Your task to perform on an android device: turn on priority inbox in the gmail app Image 0: 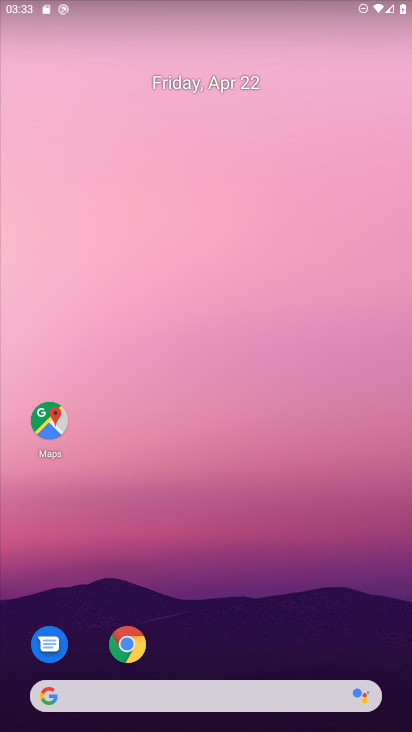
Step 0: drag from (255, 600) to (270, 37)
Your task to perform on an android device: turn on priority inbox in the gmail app Image 1: 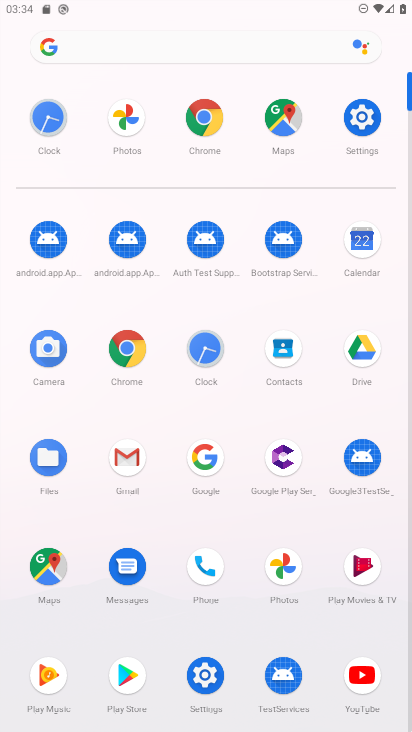
Step 1: click (135, 460)
Your task to perform on an android device: turn on priority inbox in the gmail app Image 2: 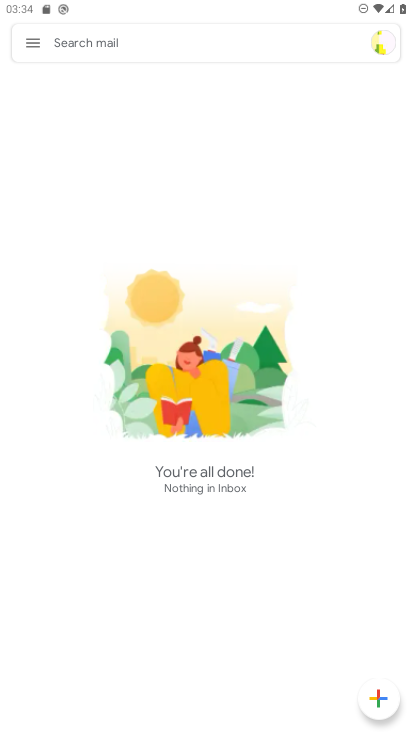
Step 2: click (24, 38)
Your task to perform on an android device: turn on priority inbox in the gmail app Image 3: 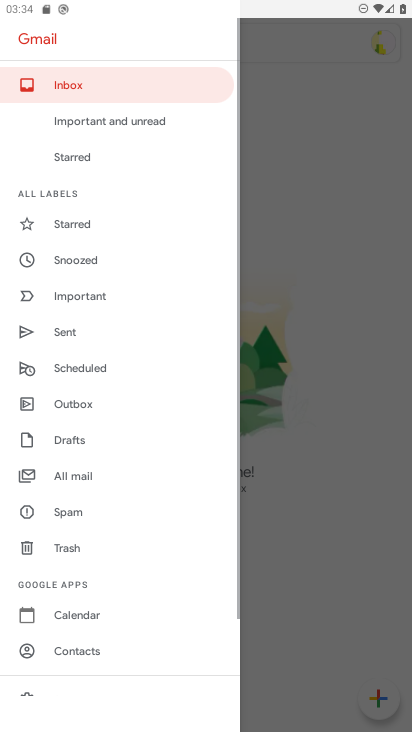
Step 3: drag from (112, 631) to (164, 144)
Your task to perform on an android device: turn on priority inbox in the gmail app Image 4: 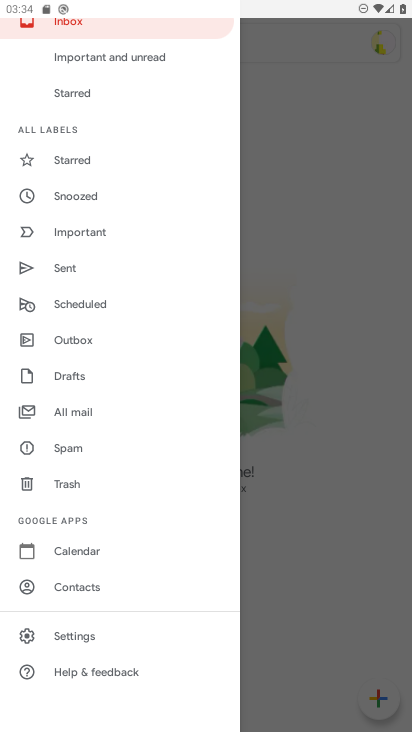
Step 4: click (64, 644)
Your task to perform on an android device: turn on priority inbox in the gmail app Image 5: 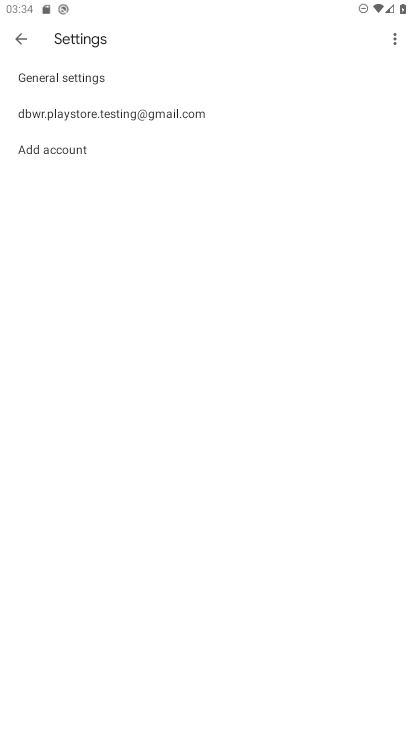
Step 5: click (105, 106)
Your task to perform on an android device: turn on priority inbox in the gmail app Image 6: 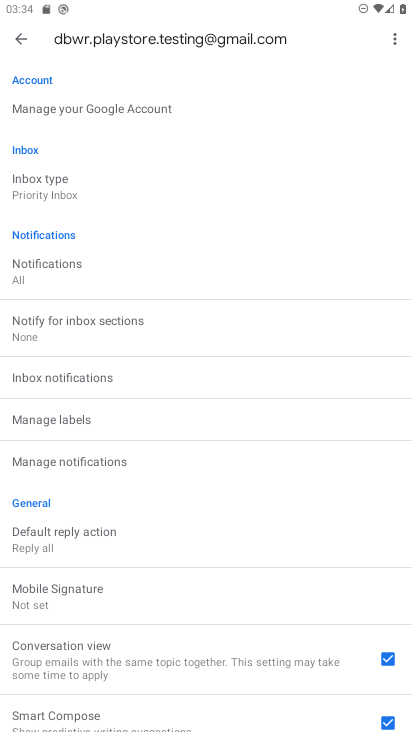
Step 6: click (61, 189)
Your task to perform on an android device: turn on priority inbox in the gmail app Image 7: 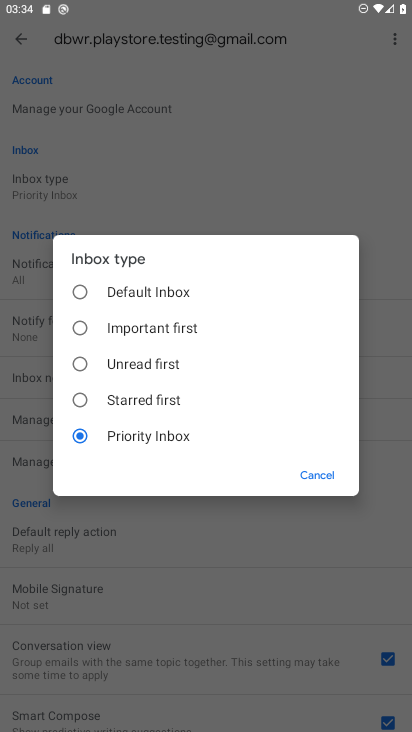
Step 7: task complete